Your task to perform on an android device: allow cookies in the chrome app Image 0: 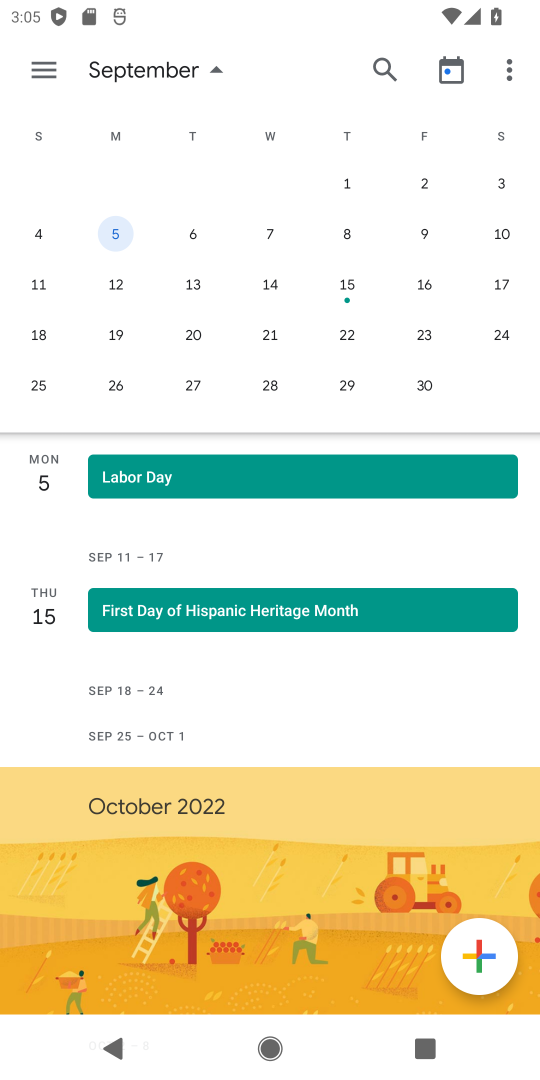
Step 0: press home button
Your task to perform on an android device: allow cookies in the chrome app Image 1: 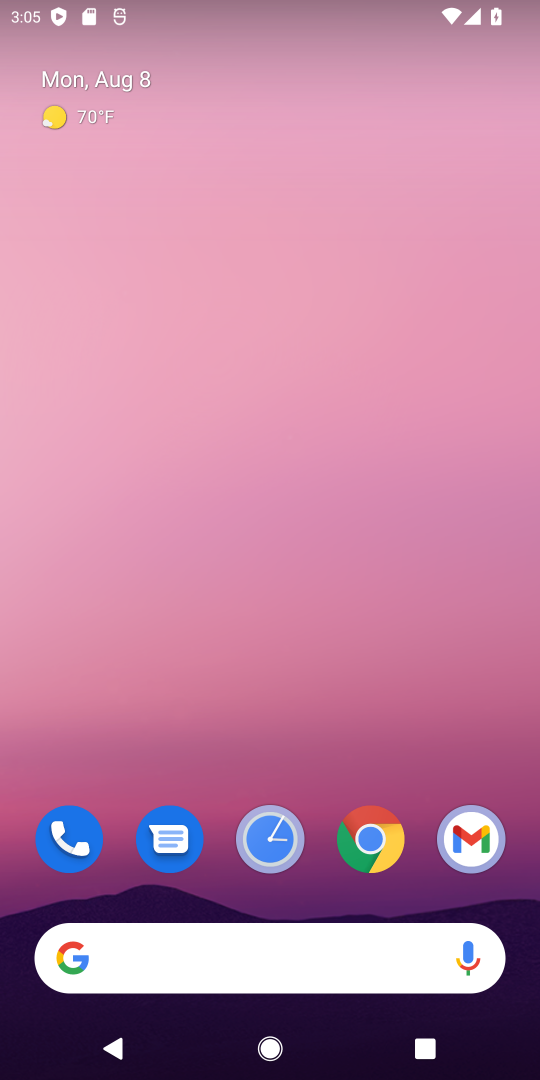
Step 1: drag from (414, 675) to (419, 122)
Your task to perform on an android device: allow cookies in the chrome app Image 2: 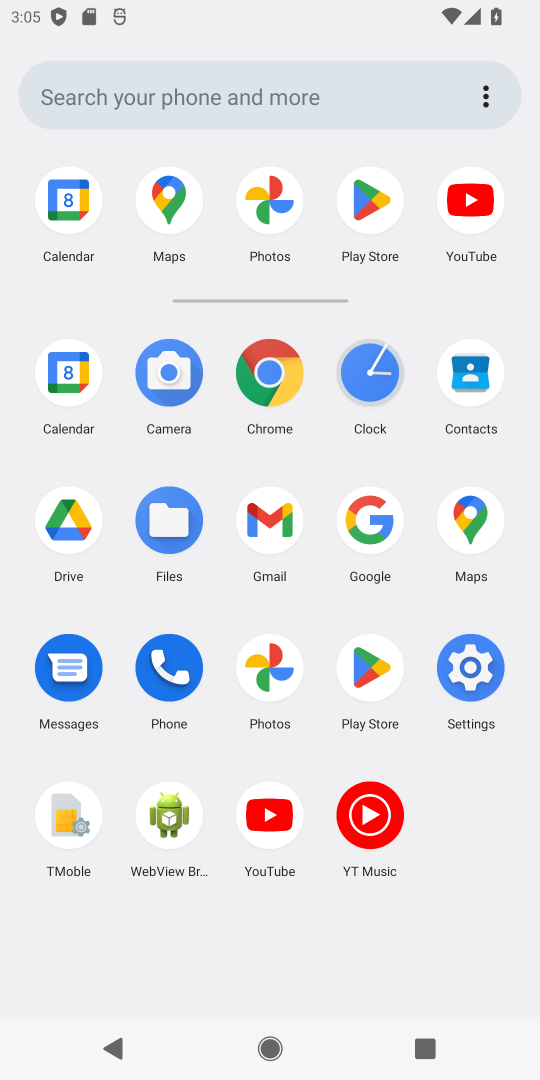
Step 2: click (271, 372)
Your task to perform on an android device: allow cookies in the chrome app Image 3: 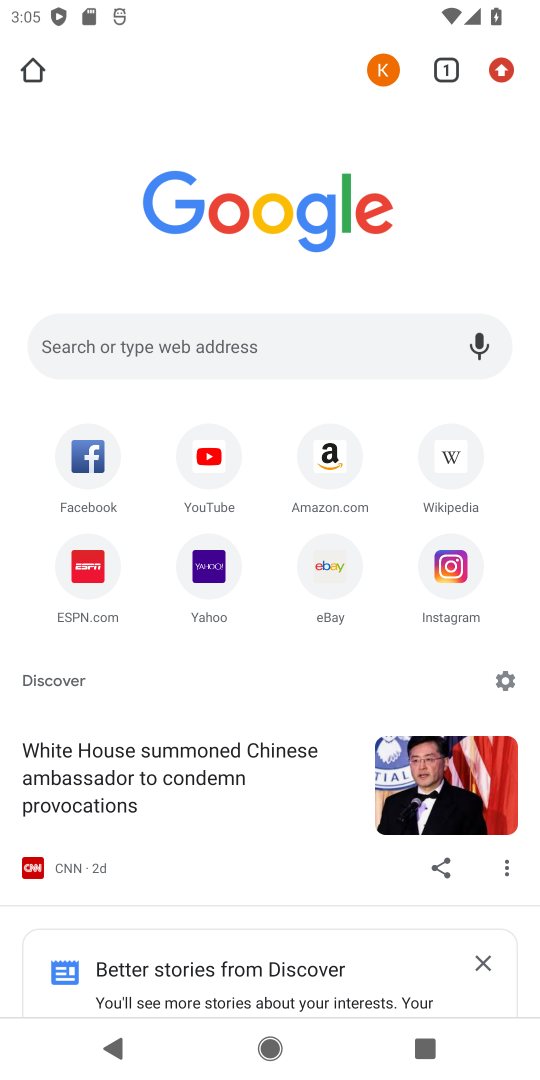
Step 3: click (496, 68)
Your task to perform on an android device: allow cookies in the chrome app Image 4: 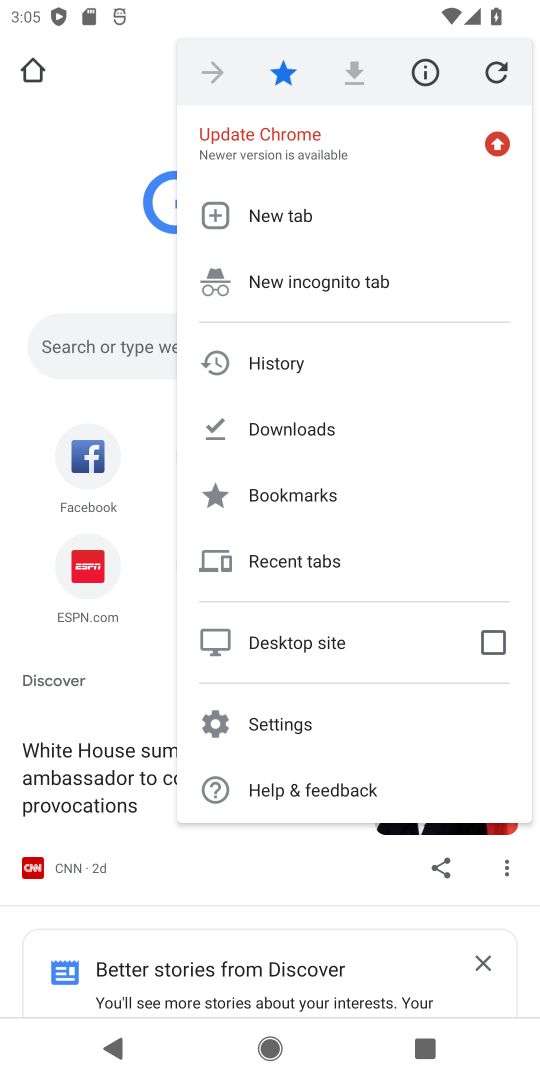
Step 4: click (305, 729)
Your task to perform on an android device: allow cookies in the chrome app Image 5: 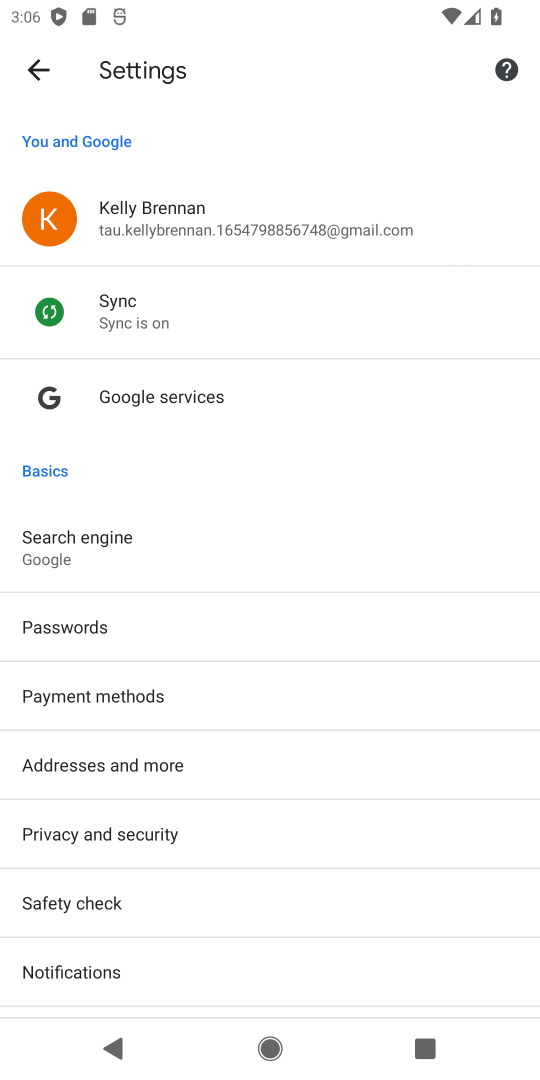
Step 5: drag from (427, 774) to (431, 568)
Your task to perform on an android device: allow cookies in the chrome app Image 6: 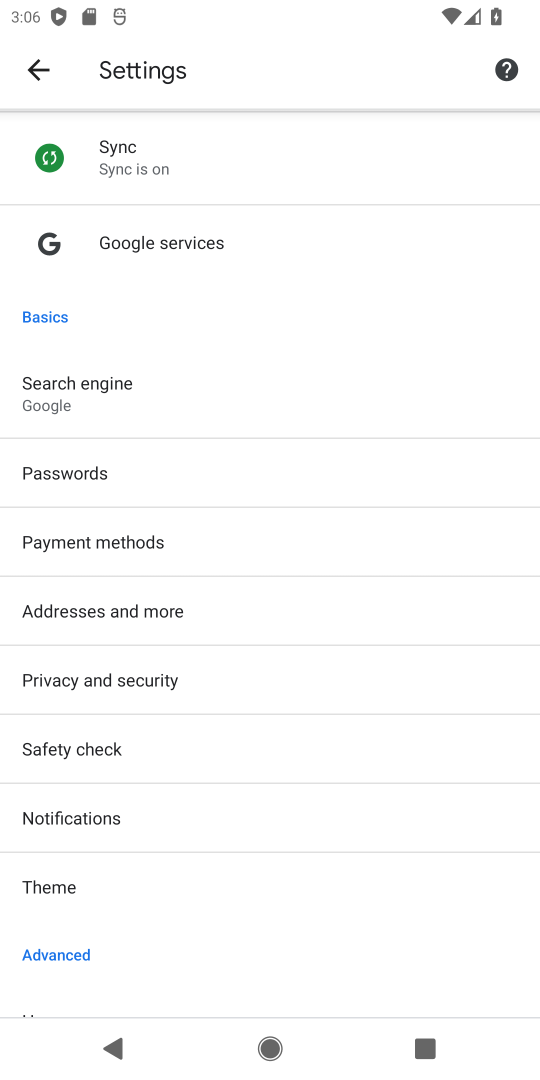
Step 6: drag from (429, 757) to (423, 544)
Your task to perform on an android device: allow cookies in the chrome app Image 7: 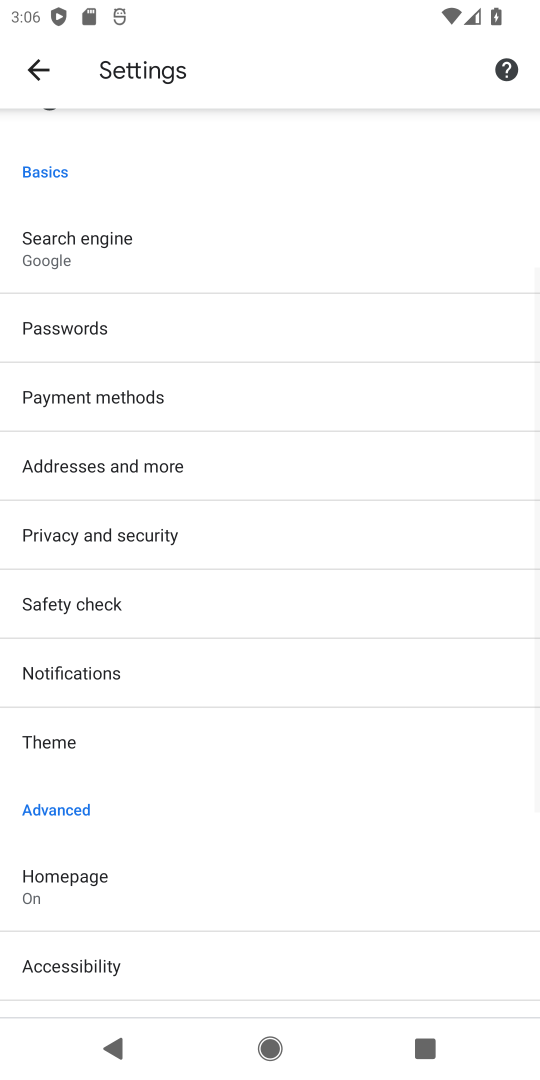
Step 7: drag from (445, 818) to (441, 582)
Your task to perform on an android device: allow cookies in the chrome app Image 8: 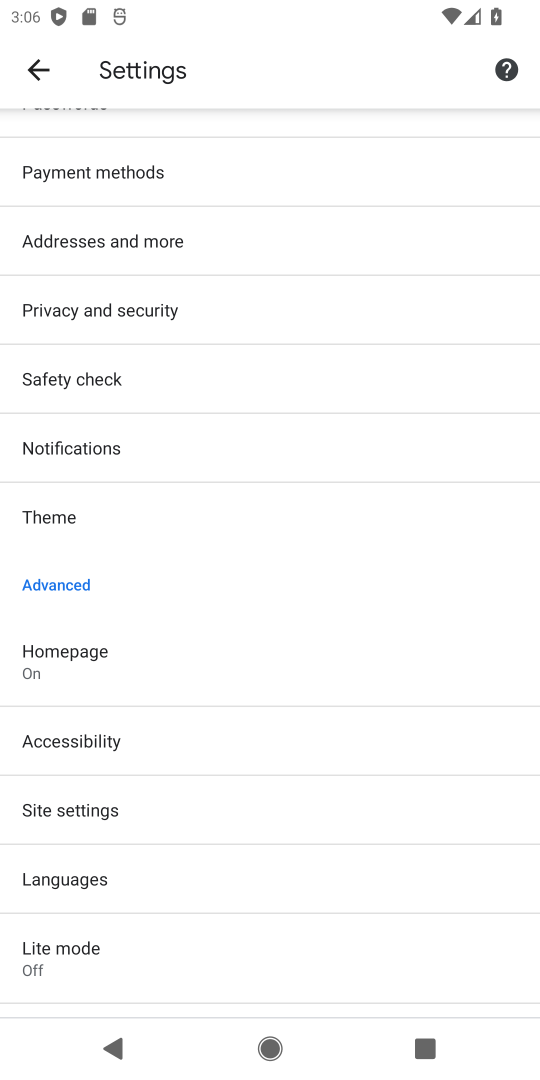
Step 8: drag from (457, 820) to (440, 546)
Your task to perform on an android device: allow cookies in the chrome app Image 9: 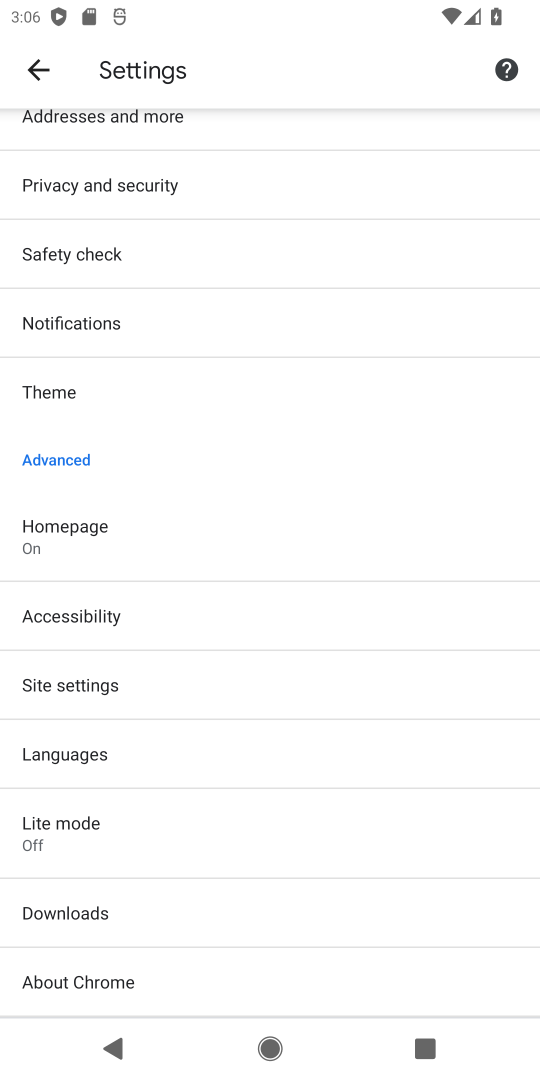
Step 9: drag from (422, 810) to (424, 531)
Your task to perform on an android device: allow cookies in the chrome app Image 10: 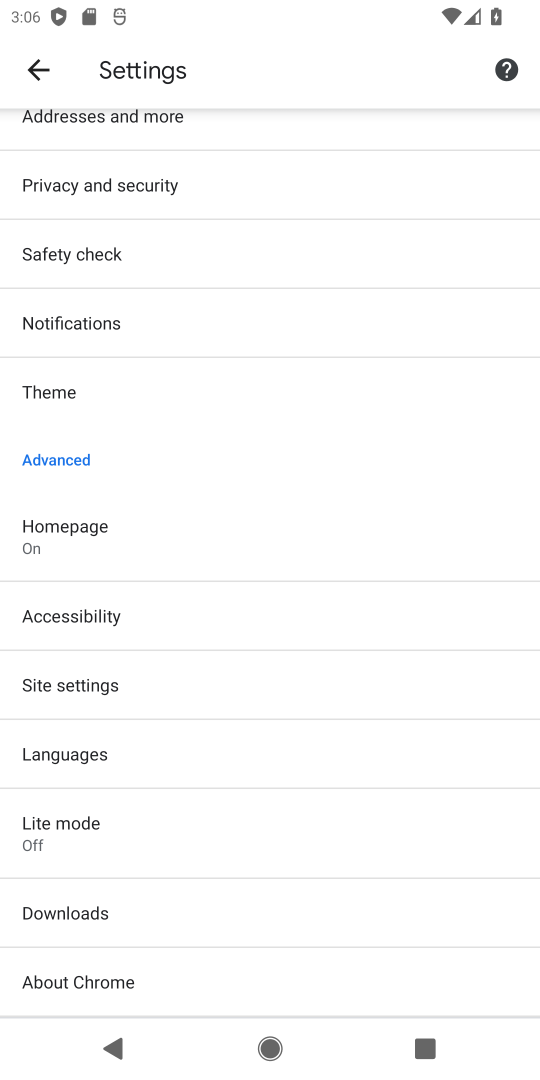
Step 10: drag from (423, 369) to (421, 529)
Your task to perform on an android device: allow cookies in the chrome app Image 11: 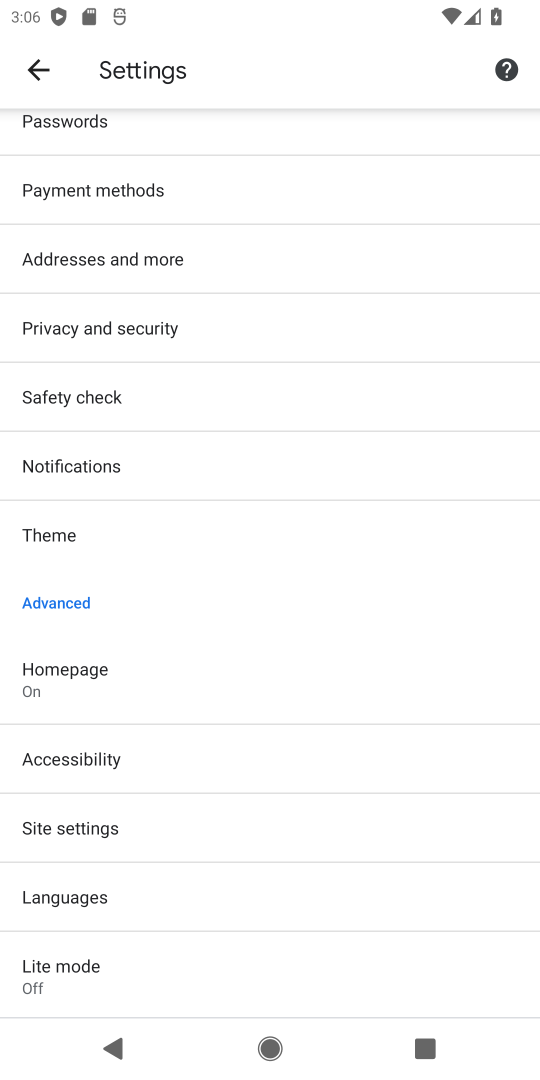
Step 11: click (383, 823)
Your task to perform on an android device: allow cookies in the chrome app Image 12: 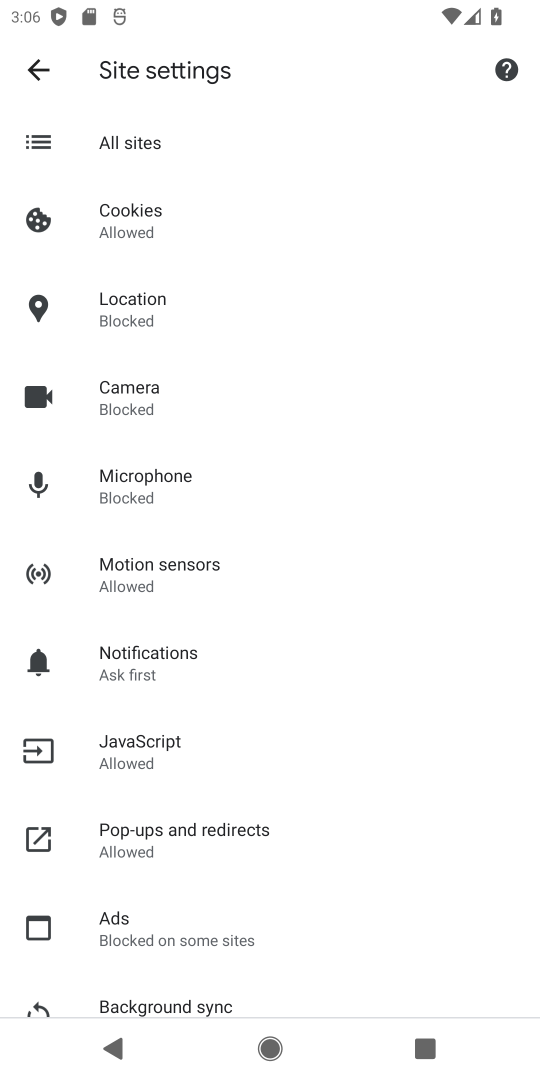
Step 12: click (195, 215)
Your task to perform on an android device: allow cookies in the chrome app Image 13: 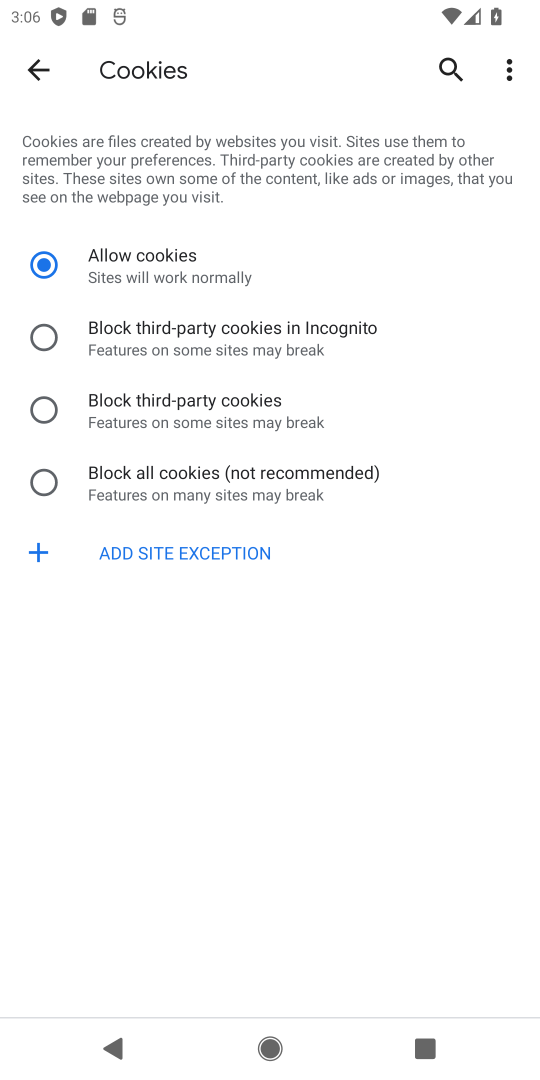
Step 13: task complete